Your task to perform on an android device: check data usage Image 0: 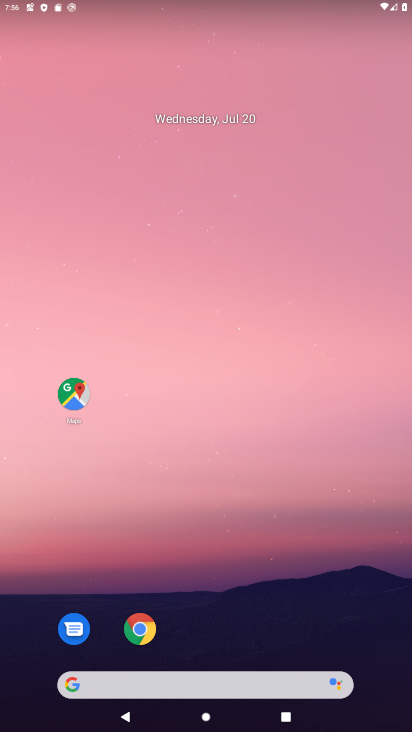
Step 0: drag from (200, 616) to (203, 272)
Your task to perform on an android device: check data usage Image 1: 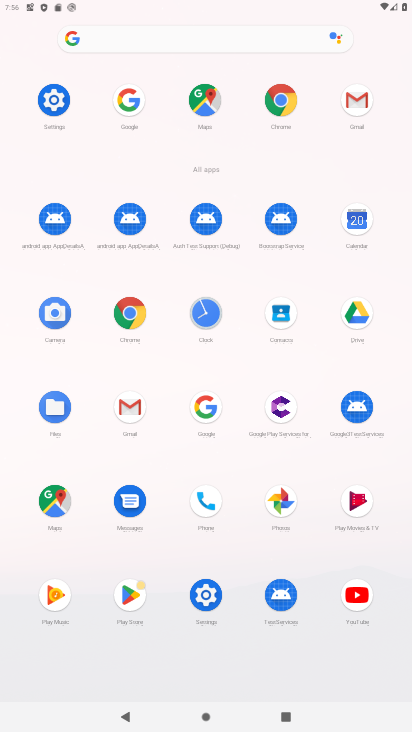
Step 1: click (51, 97)
Your task to perform on an android device: check data usage Image 2: 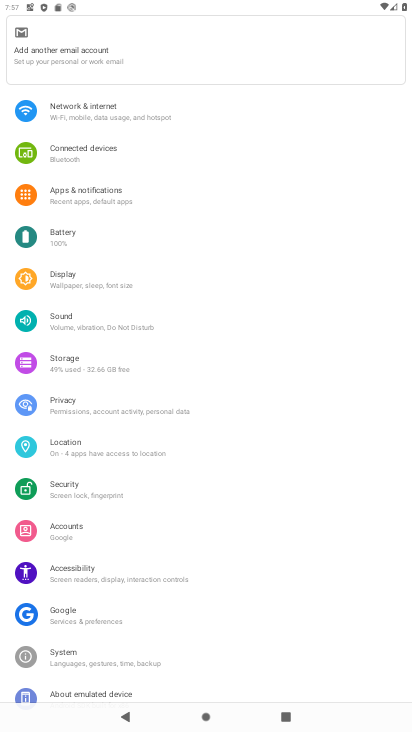
Step 2: click (51, 97)
Your task to perform on an android device: check data usage Image 3: 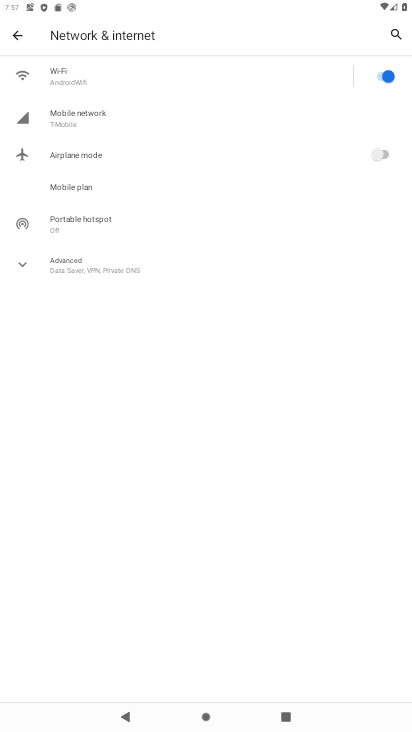
Step 3: click (128, 111)
Your task to perform on an android device: check data usage Image 4: 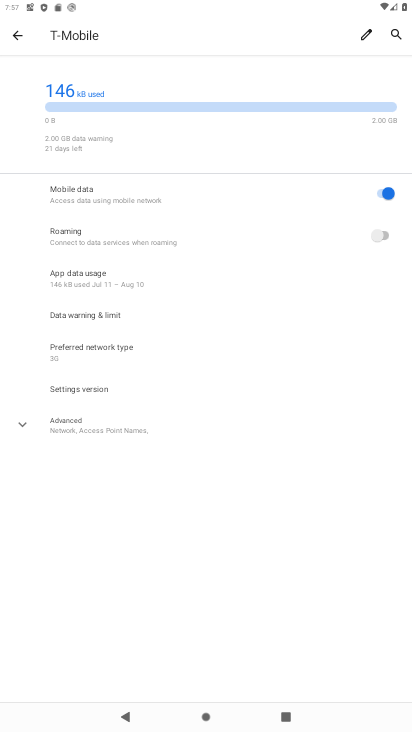
Step 4: task complete